Your task to perform on an android device: What's on my calendar today? Image 0: 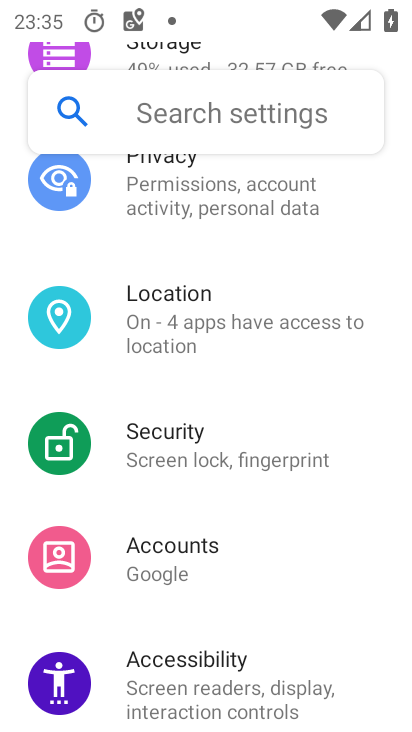
Step 0: press home button
Your task to perform on an android device: What's on my calendar today? Image 1: 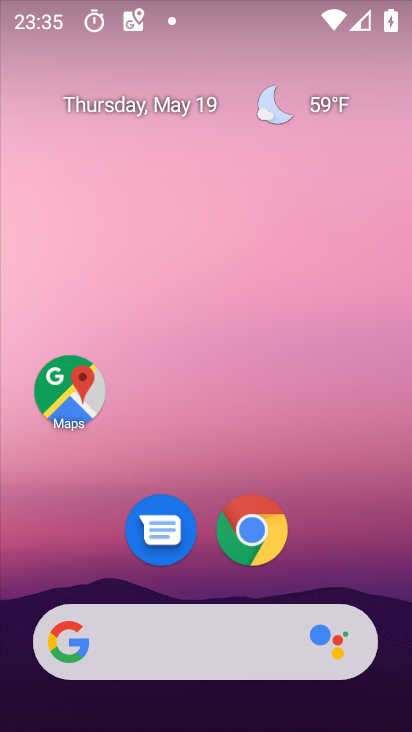
Step 1: drag from (365, 577) to (353, 171)
Your task to perform on an android device: What's on my calendar today? Image 2: 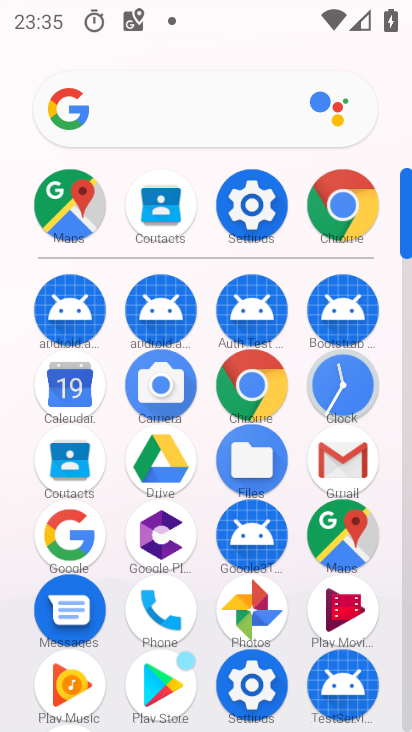
Step 2: click (74, 392)
Your task to perform on an android device: What's on my calendar today? Image 3: 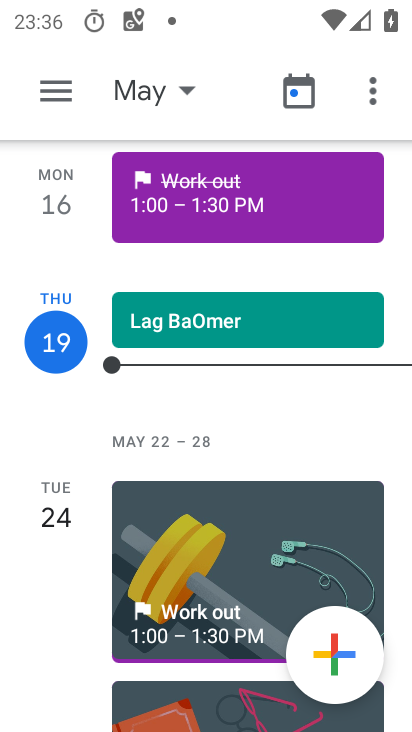
Step 3: click (147, 94)
Your task to perform on an android device: What's on my calendar today? Image 4: 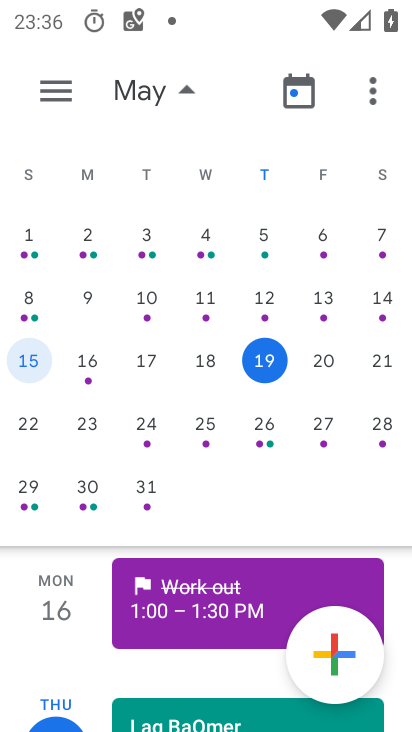
Step 4: click (270, 357)
Your task to perform on an android device: What's on my calendar today? Image 5: 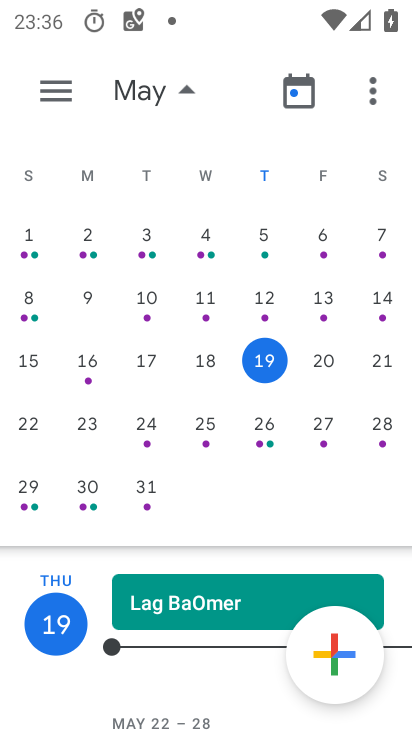
Step 5: task complete